Your task to perform on an android device: Open Wikipedia Image 0: 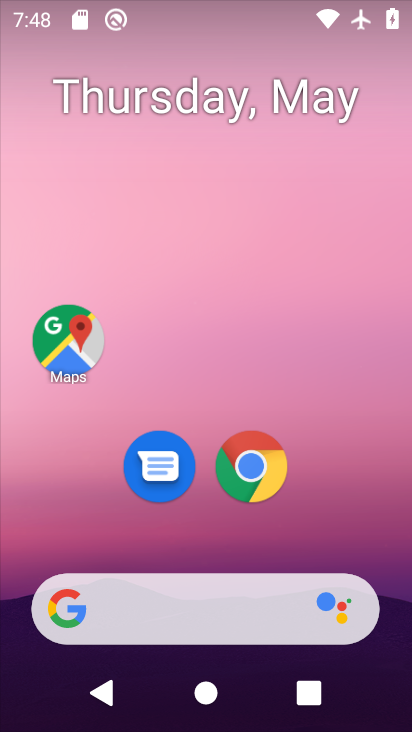
Step 0: click (221, 587)
Your task to perform on an android device: Open Wikipedia Image 1: 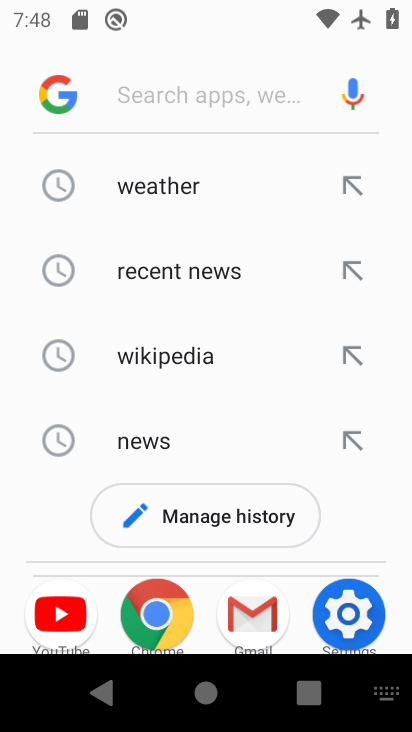
Step 1: click (164, 370)
Your task to perform on an android device: Open Wikipedia Image 2: 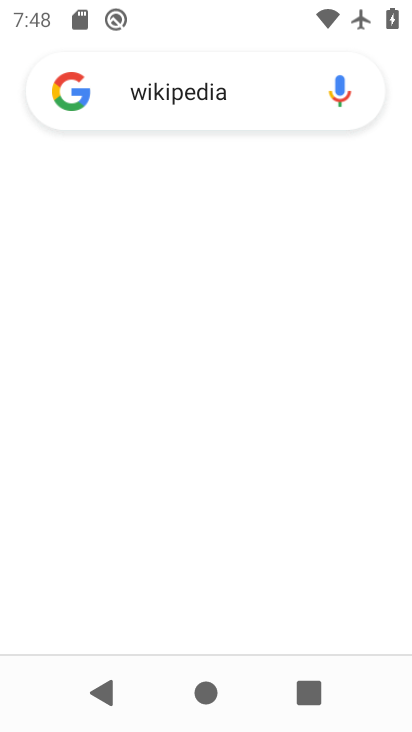
Step 2: task complete